Your task to perform on an android device: Go to Google Image 0: 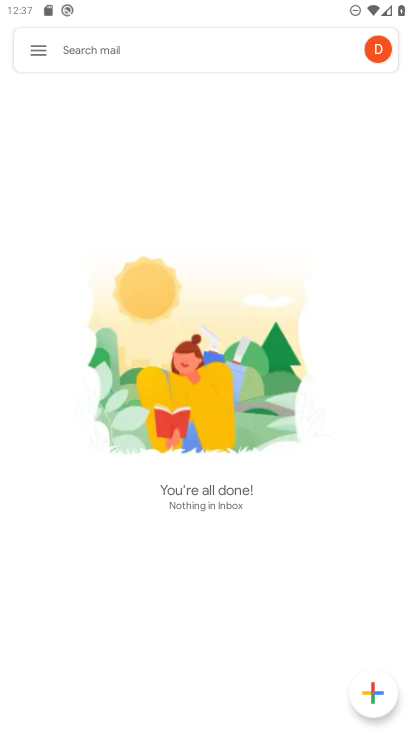
Step 0: press home button
Your task to perform on an android device: Go to Google Image 1: 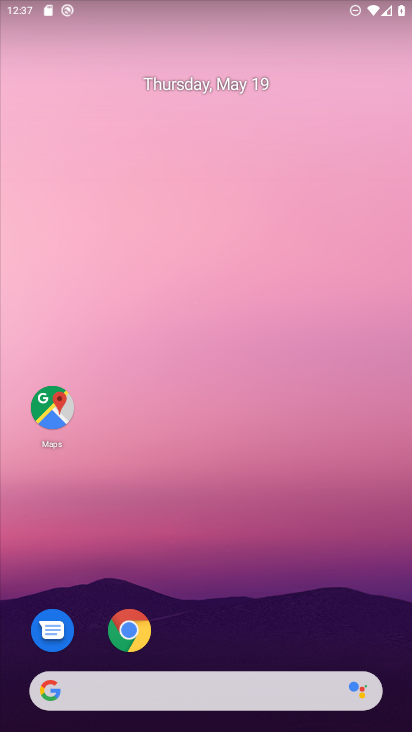
Step 1: drag from (211, 641) to (263, 336)
Your task to perform on an android device: Go to Google Image 2: 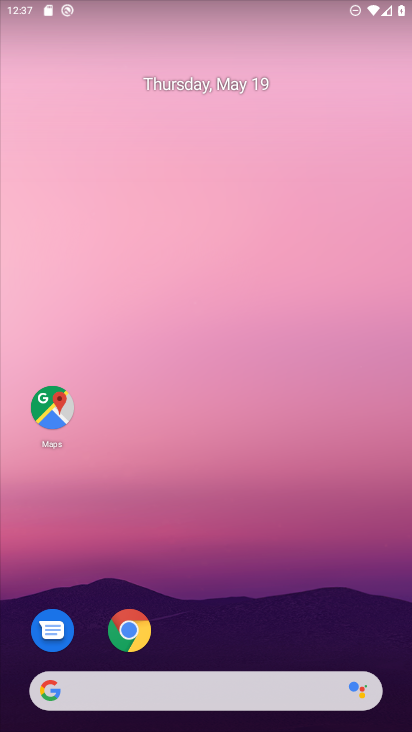
Step 2: drag from (211, 615) to (253, 311)
Your task to perform on an android device: Go to Google Image 3: 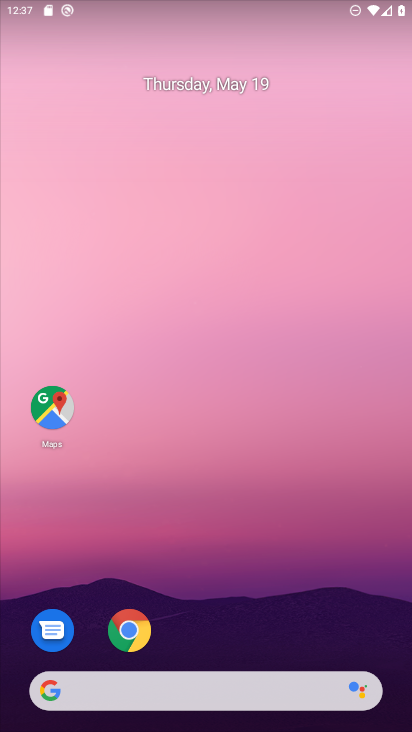
Step 3: drag from (234, 629) to (272, 375)
Your task to perform on an android device: Go to Google Image 4: 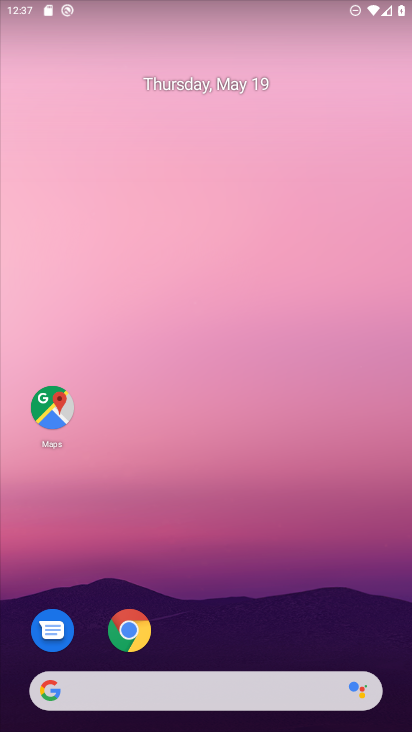
Step 4: drag from (227, 571) to (274, 350)
Your task to perform on an android device: Go to Google Image 5: 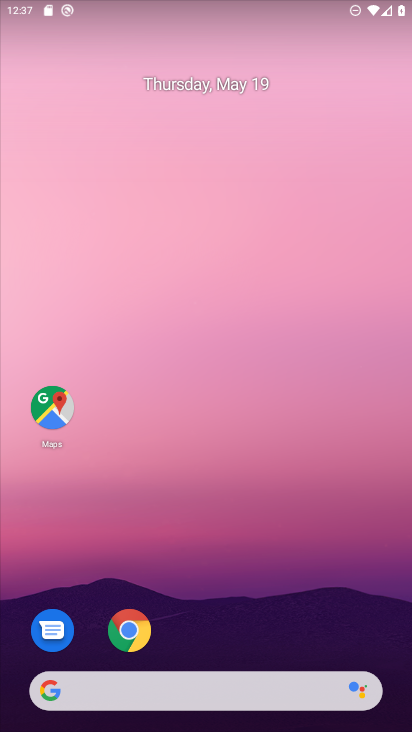
Step 5: drag from (217, 637) to (269, 360)
Your task to perform on an android device: Go to Google Image 6: 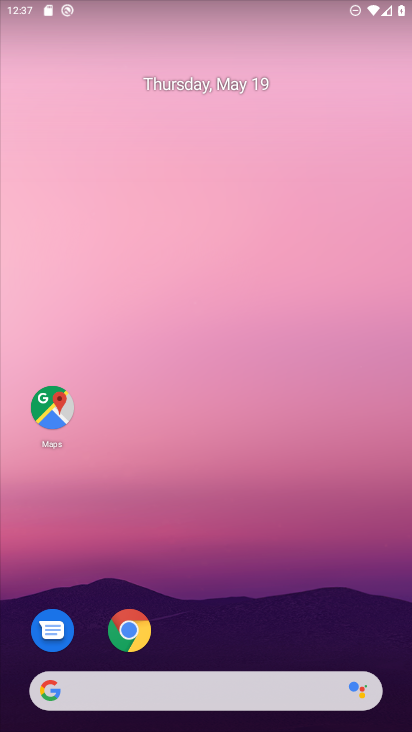
Step 6: drag from (227, 632) to (282, 202)
Your task to perform on an android device: Go to Google Image 7: 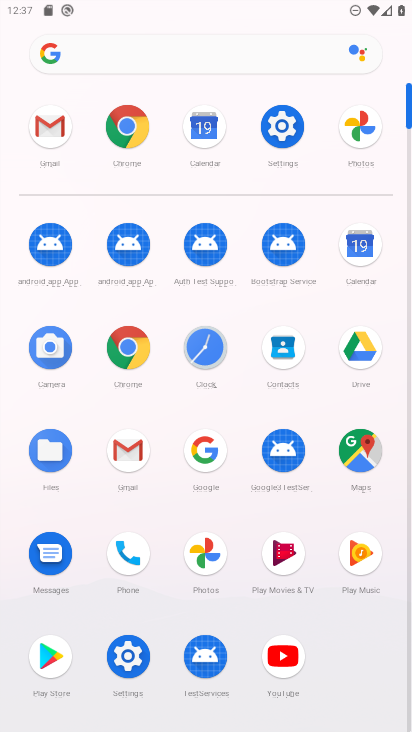
Step 7: click (208, 445)
Your task to perform on an android device: Go to Google Image 8: 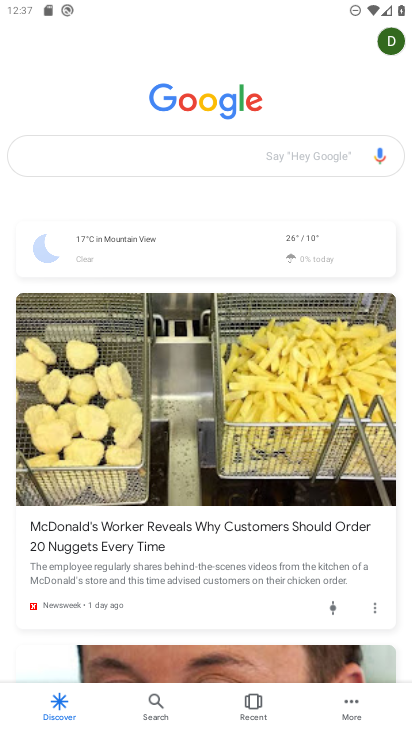
Step 8: task complete